Your task to perform on an android device: Open eBay Image 0: 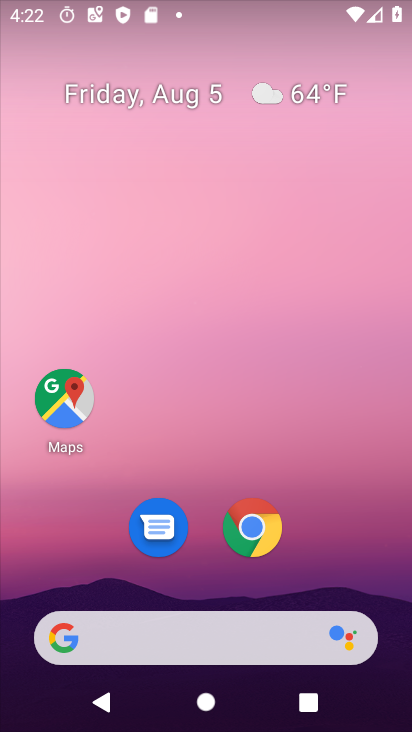
Step 0: press home button
Your task to perform on an android device: Open eBay Image 1: 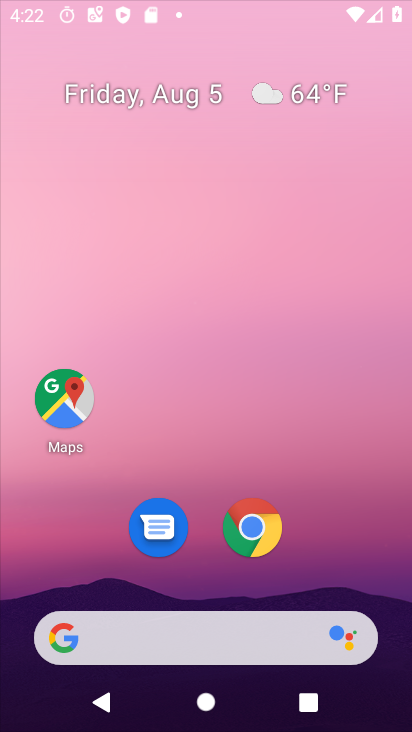
Step 1: click (202, 583)
Your task to perform on an android device: Open eBay Image 2: 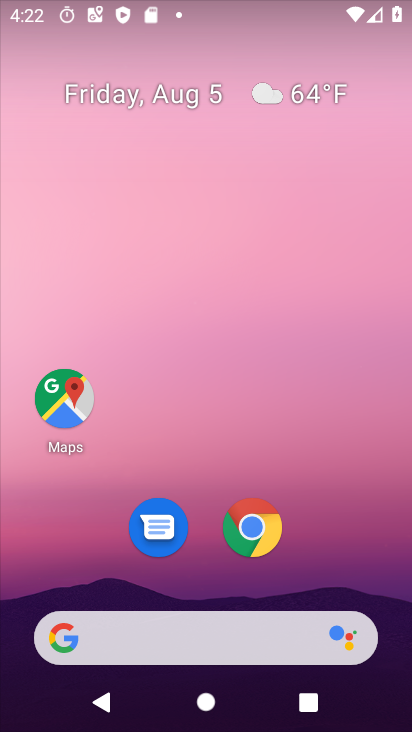
Step 2: click (247, 522)
Your task to perform on an android device: Open eBay Image 3: 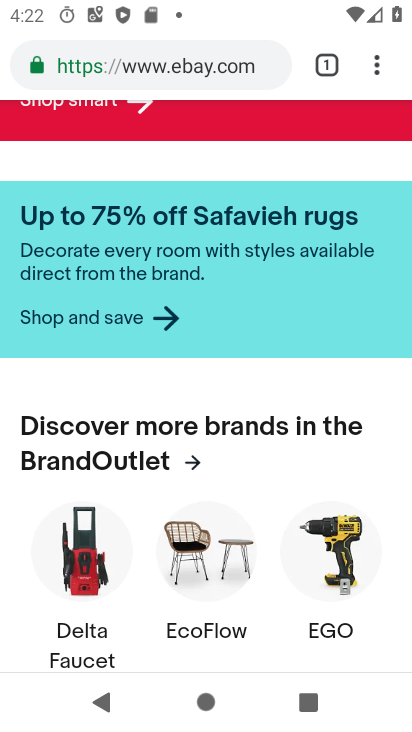
Step 3: task complete